Your task to perform on an android device: Search for sony triple a on walmart, select the first entry, and add it to the cart. Image 0: 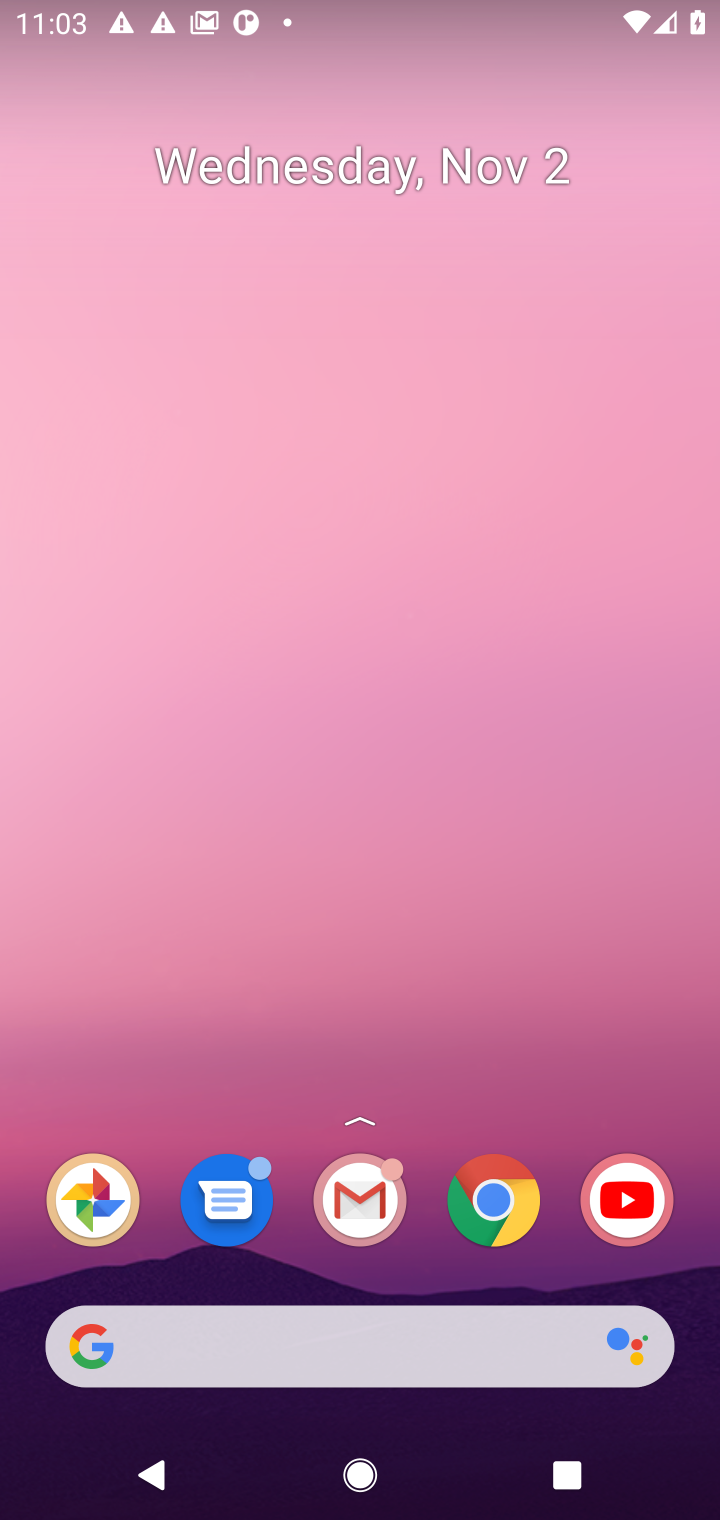
Step 0: click (504, 1208)
Your task to perform on an android device: Search for sony triple a on walmart, select the first entry, and add it to the cart. Image 1: 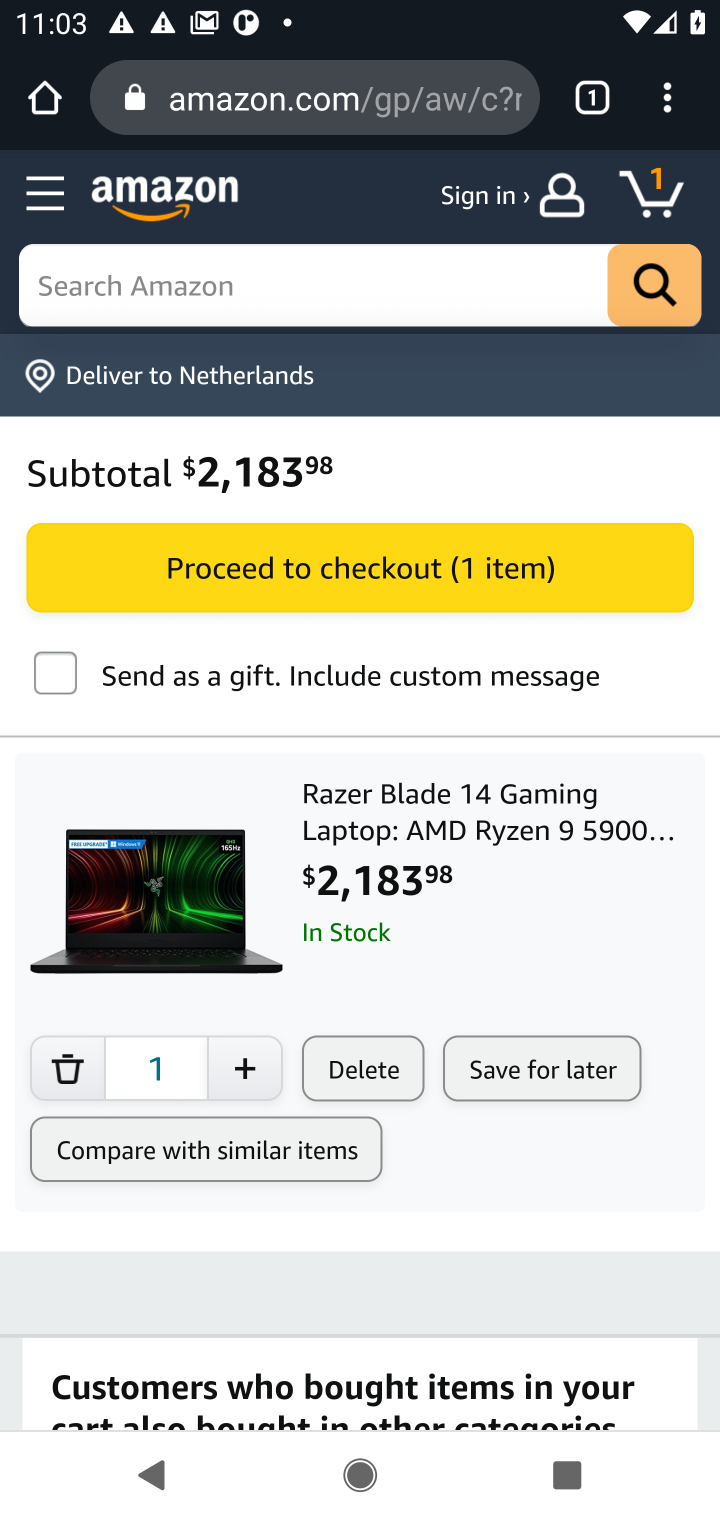
Step 1: click (377, 107)
Your task to perform on an android device: Search for sony triple a on walmart, select the first entry, and add it to the cart. Image 2: 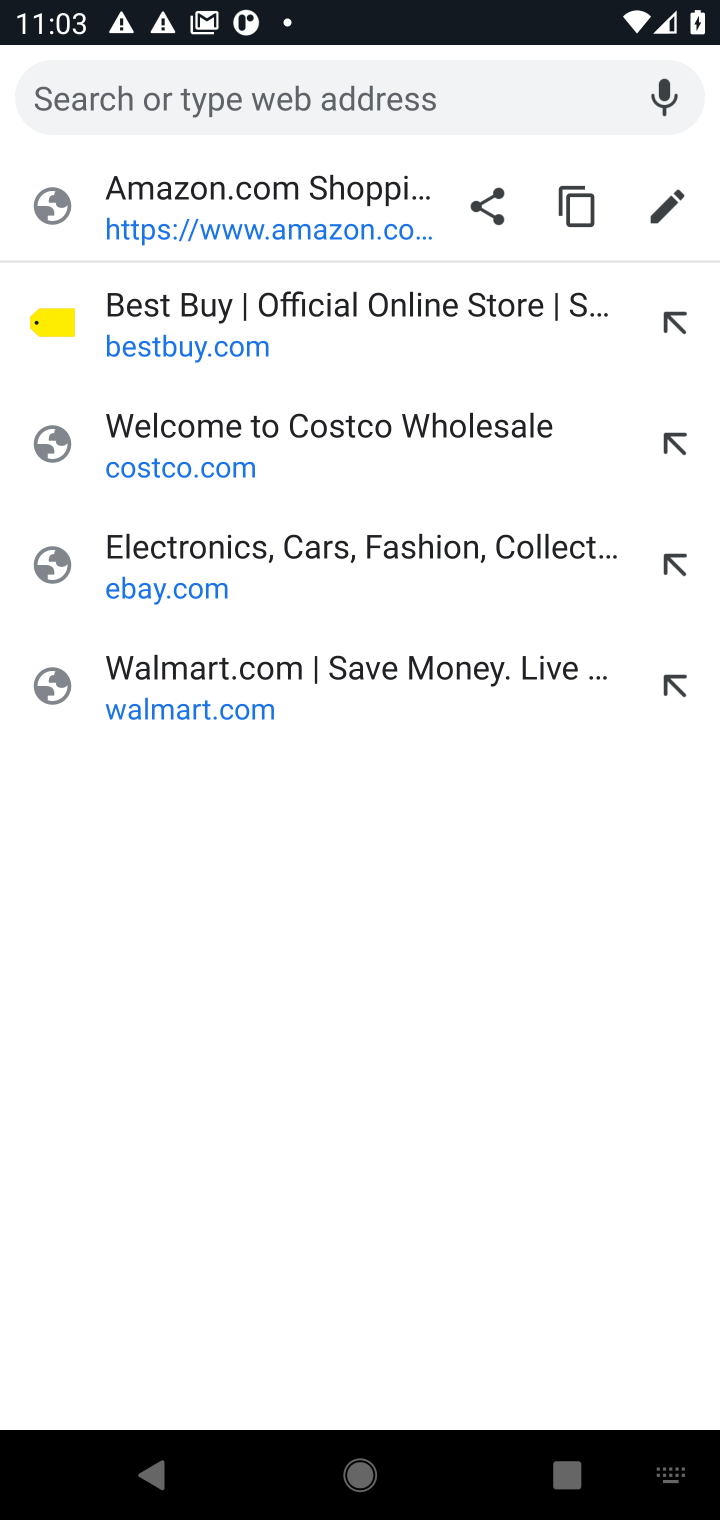
Step 2: click (231, 683)
Your task to perform on an android device: Search for sony triple a on walmart, select the first entry, and add it to the cart. Image 3: 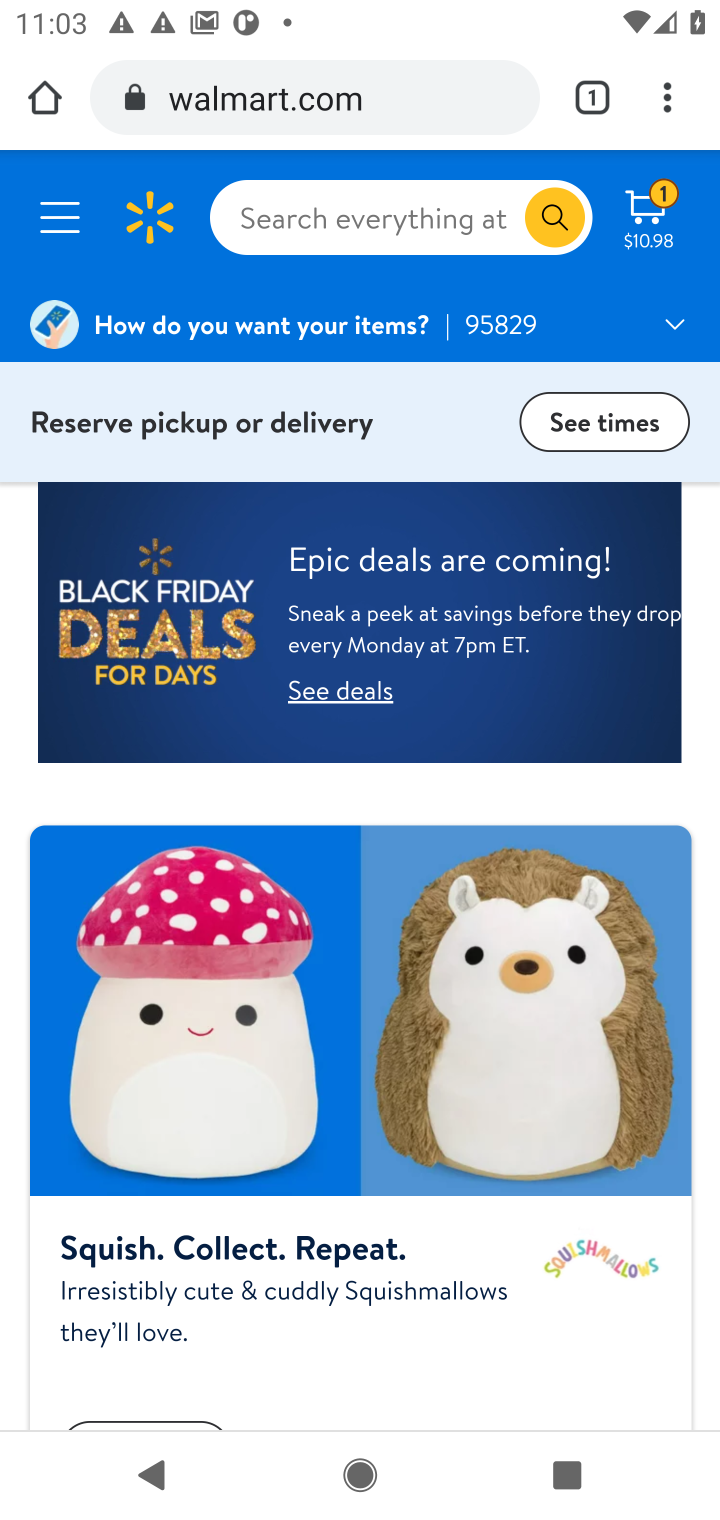
Step 3: click (343, 209)
Your task to perform on an android device: Search for sony triple a on walmart, select the first entry, and add it to the cart. Image 4: 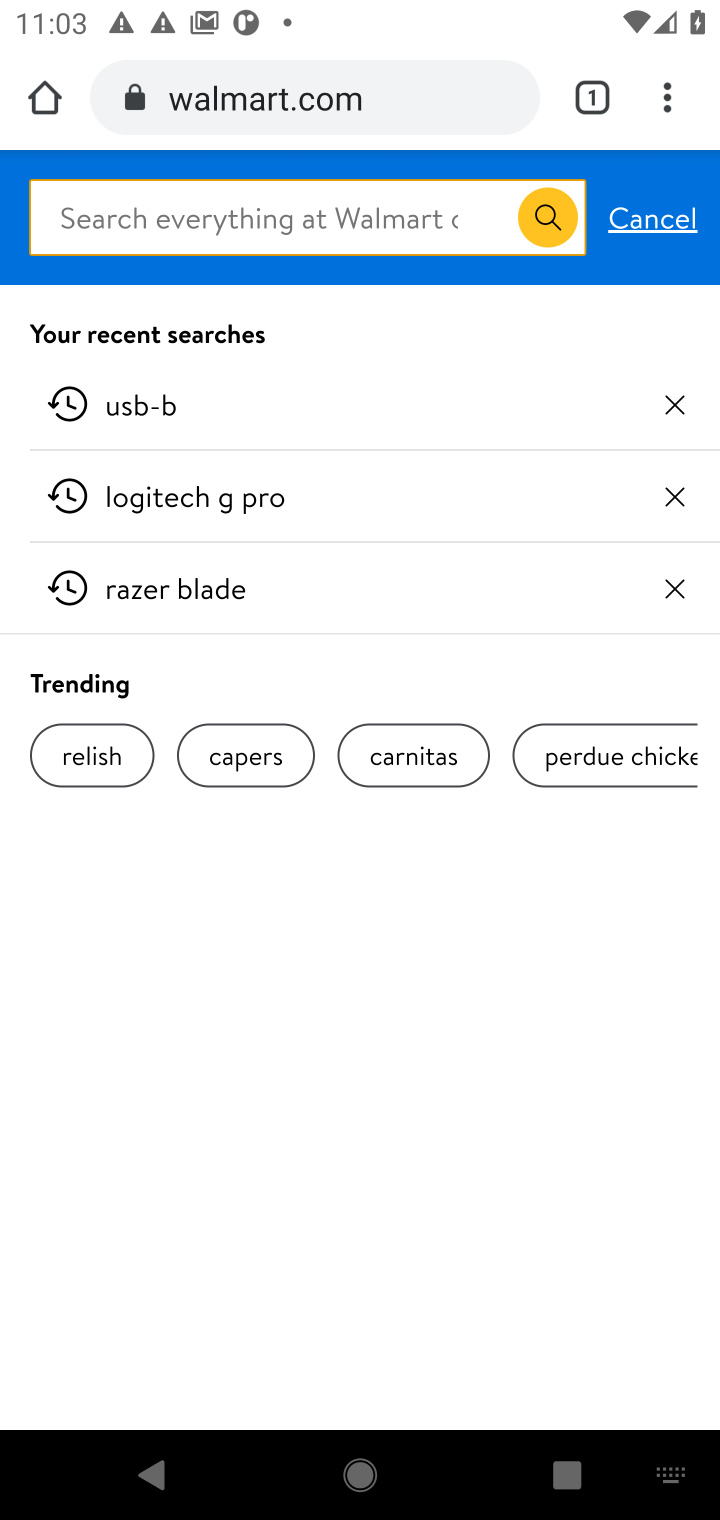
Step 4: type "sony triple a"
Your task to perform on an android device: Search for sony triple a on walmart, select the first entry, and add it to the cart. Image 5: 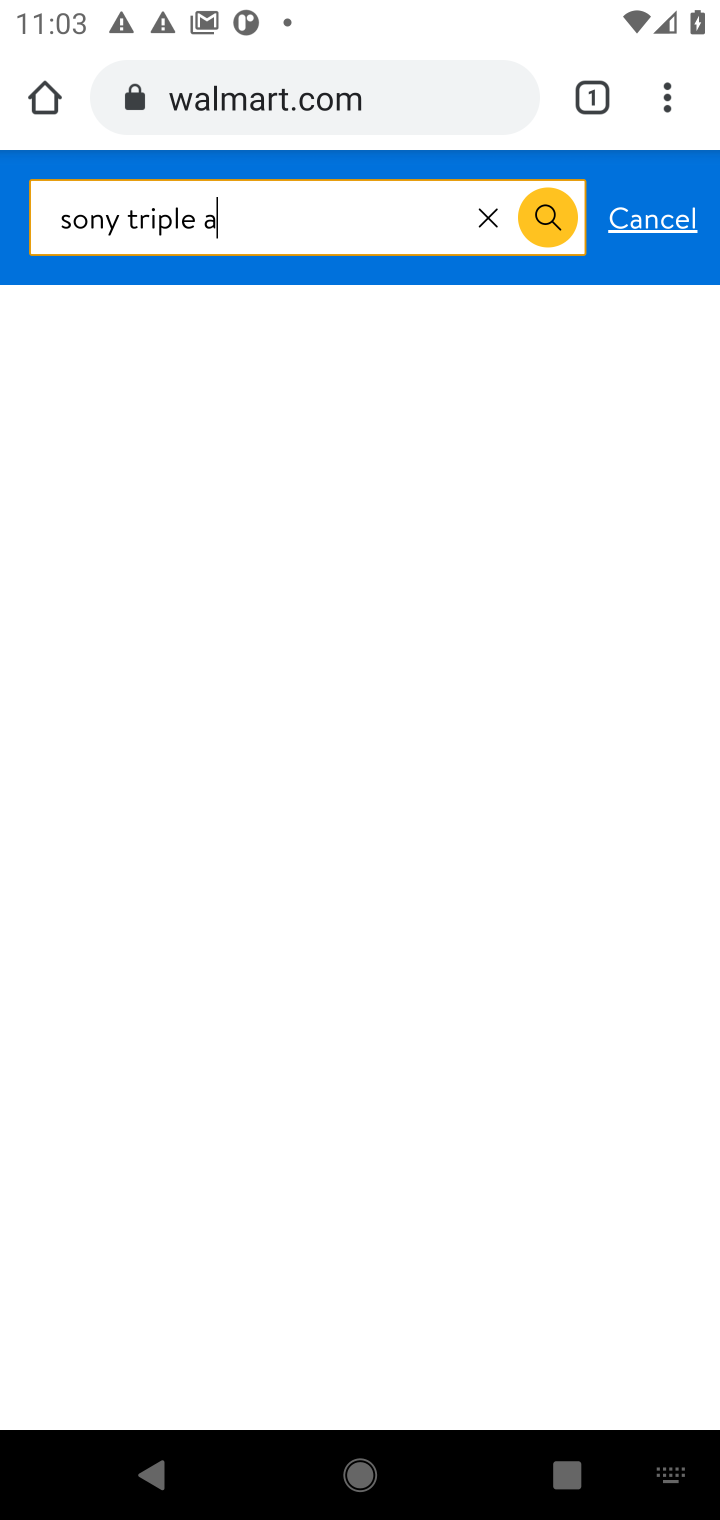
Step 5: press enter
Your task to perform on an android device: Search for sony triple a on walmart, select the first entry, and add it to the cart. Image 6: 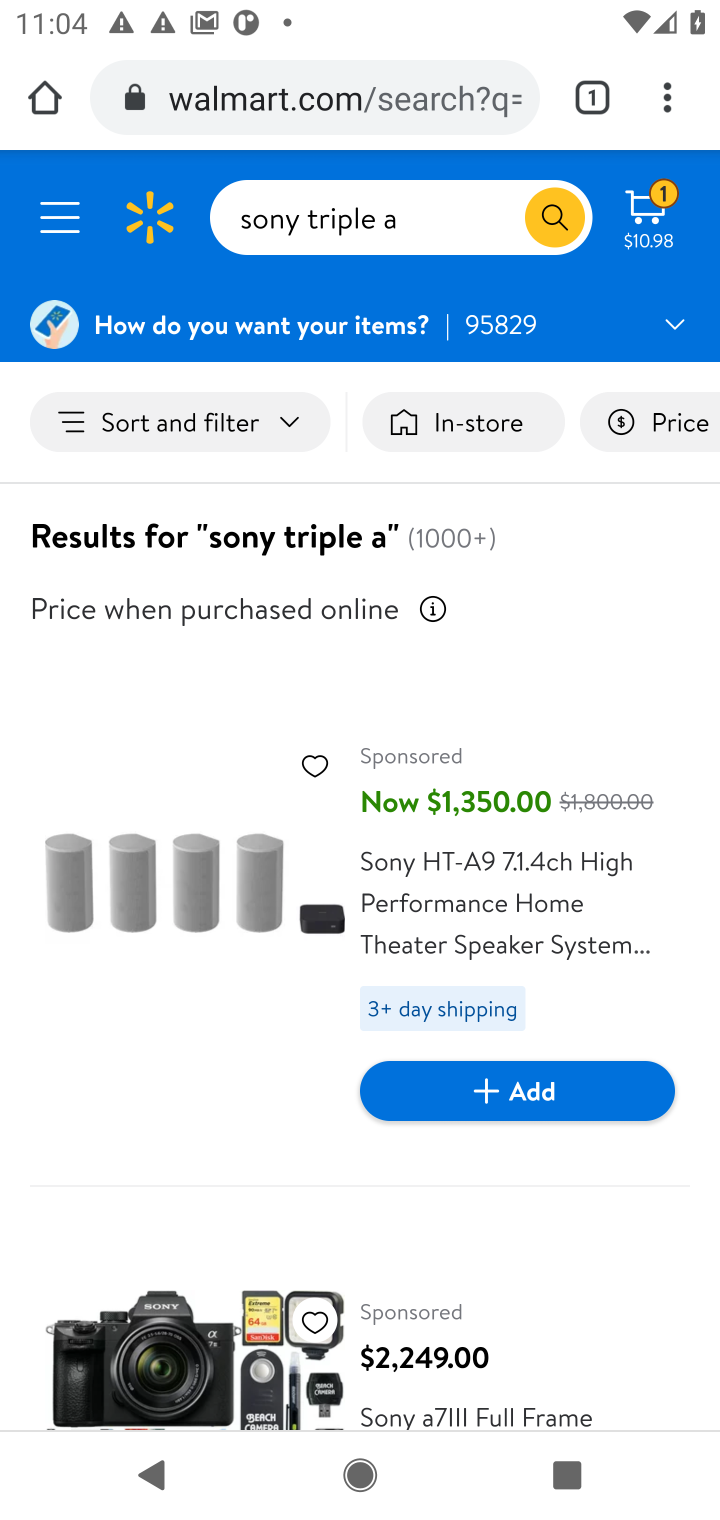
Step 6: drag from (225, 1125) to (344, 611)
Your task to perform on an android device: Search for sony triple a on walmart, select the first entry, and add it to the cart. Image 7: 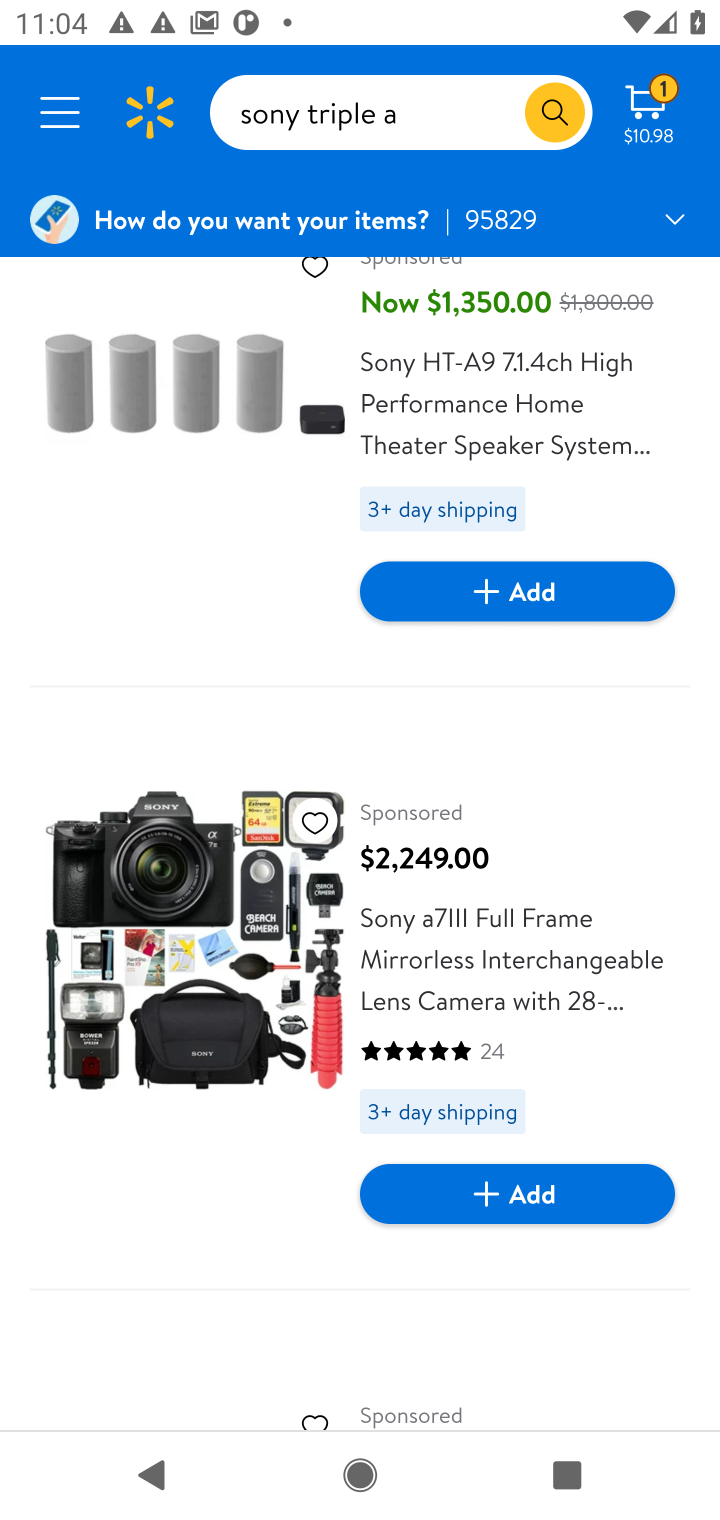
Step 7: drag from (173, 1067) to (196, 619)
Your task to perform on an android device: Search for sony triple a on walmart, select the first entry, and add it to the cart. Image 8: 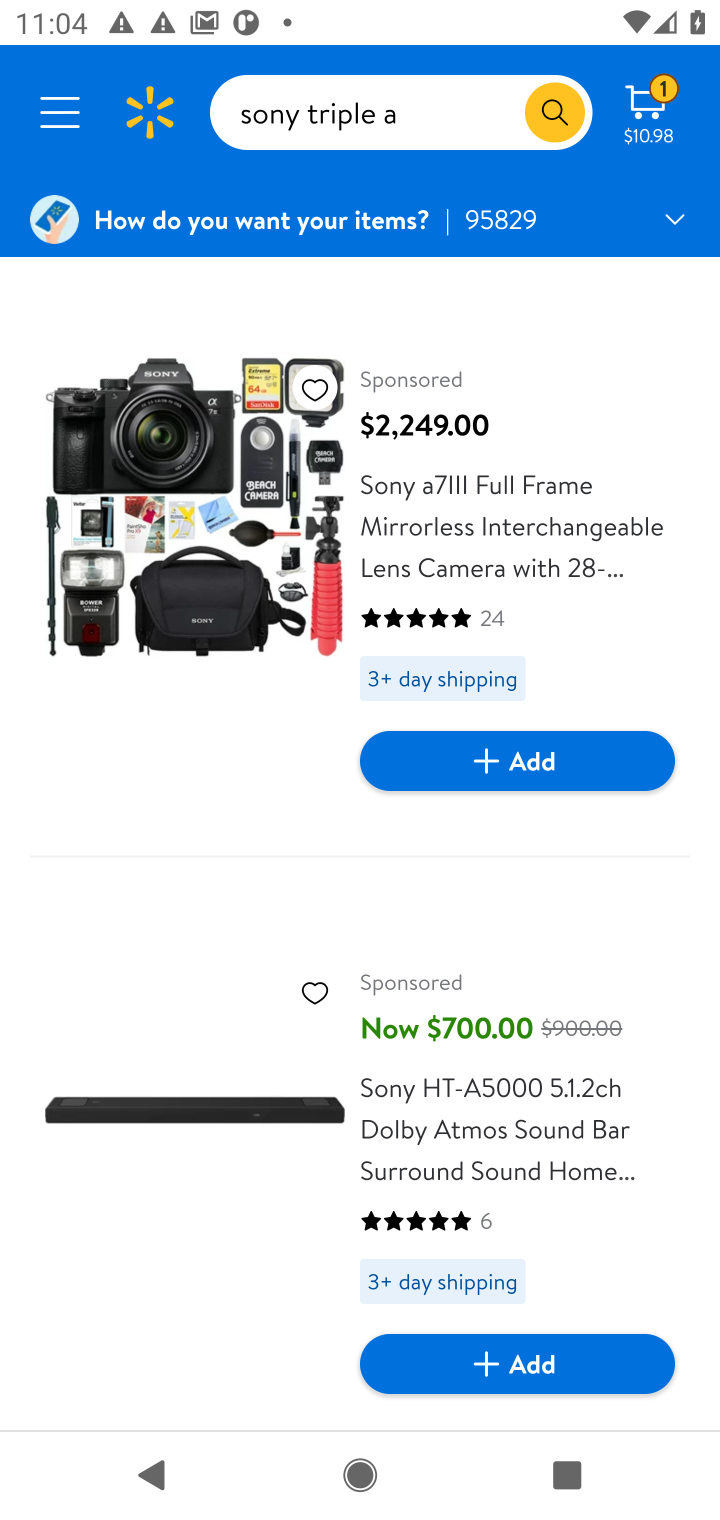
Step 8: drag from (240, 1154) to (197, 529)
Your task to perform on an android device: Search for sony triple a on walmart, select the first entry, and add it to the cart. Image 9: 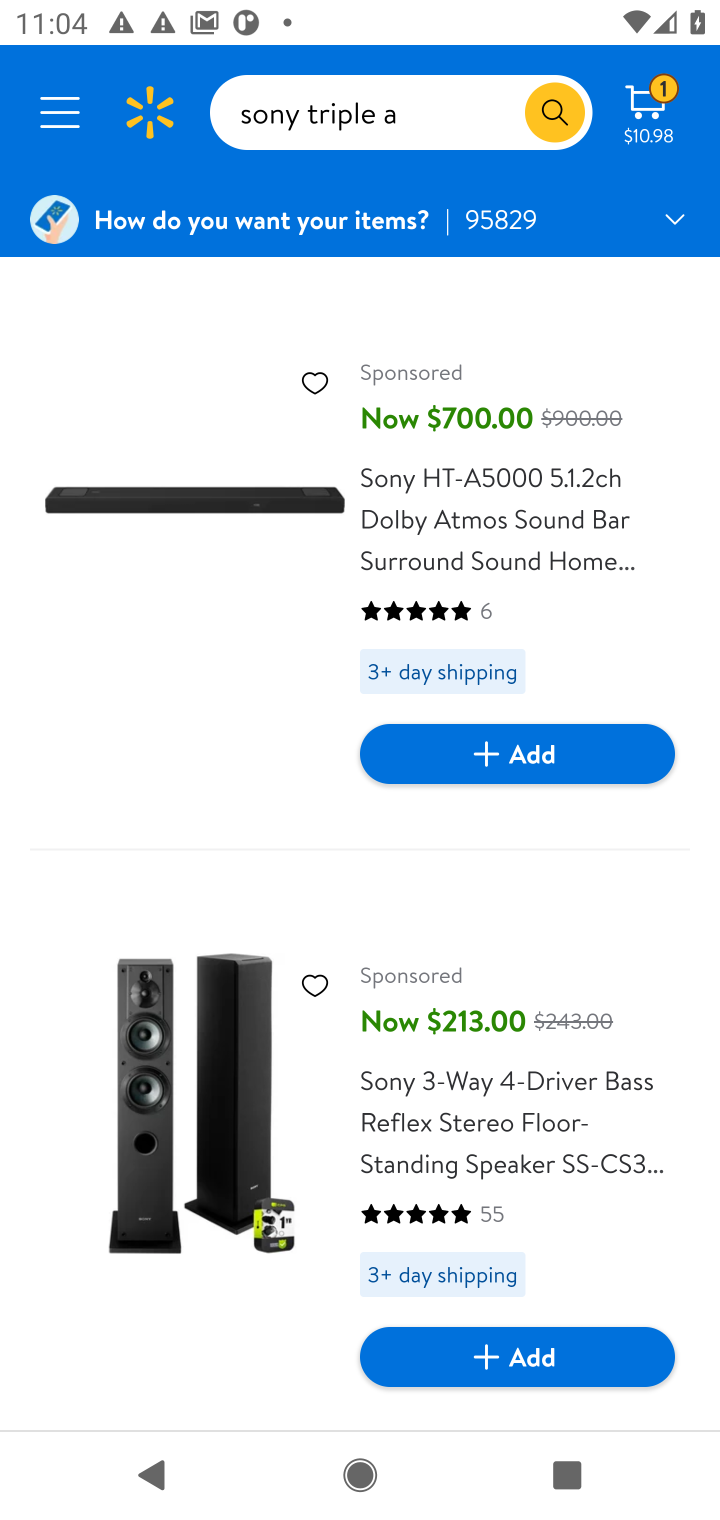
Step 9: drag from (230, 582) to (222, 1219)
Your task to perform on an android device: Search for sony triple a on walmart, select the first entry, and add it to the cart. Image 10: 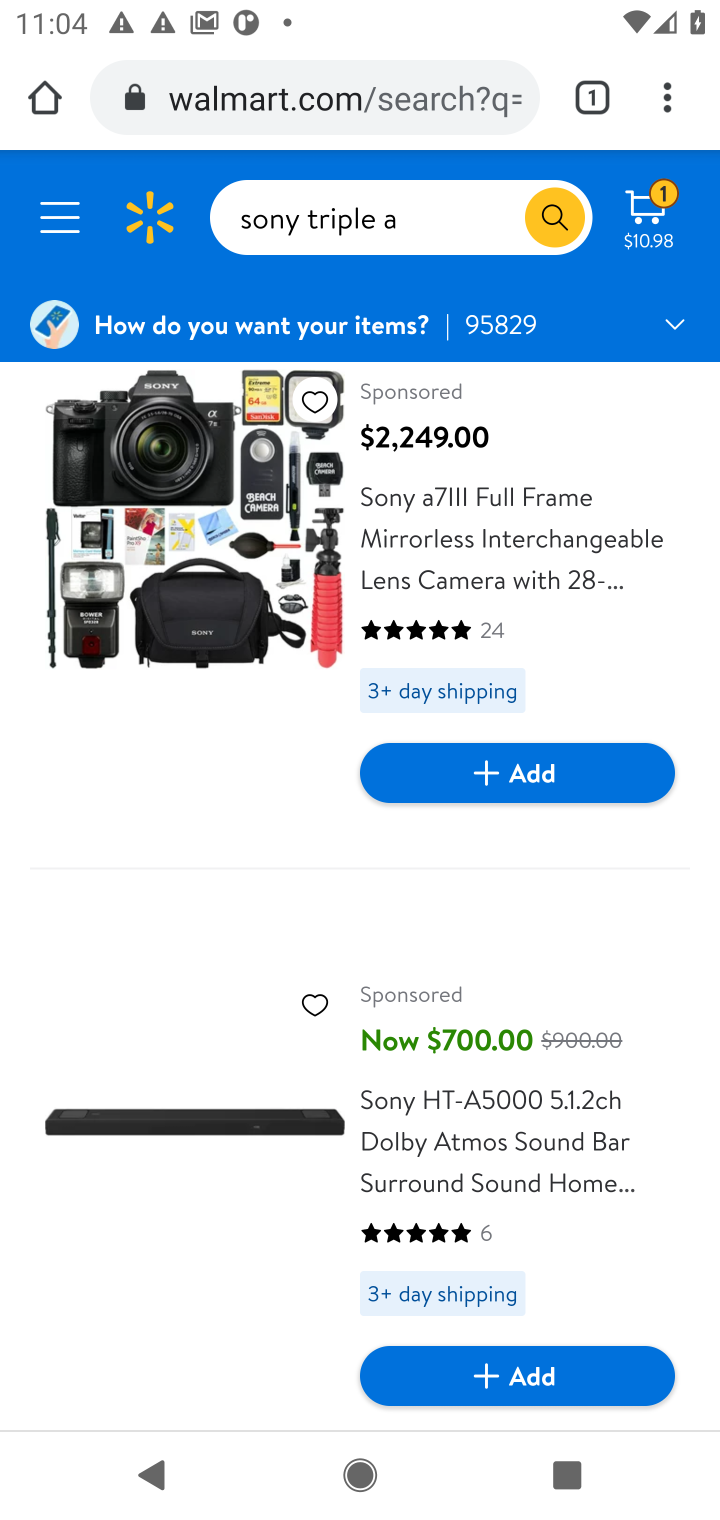
Step 10: drag from (186, 879) to (192, 1194)
Your task to perform on an android device: Search for sony triple a on walmart, select the first entry, and add it to the cart. Image 11: 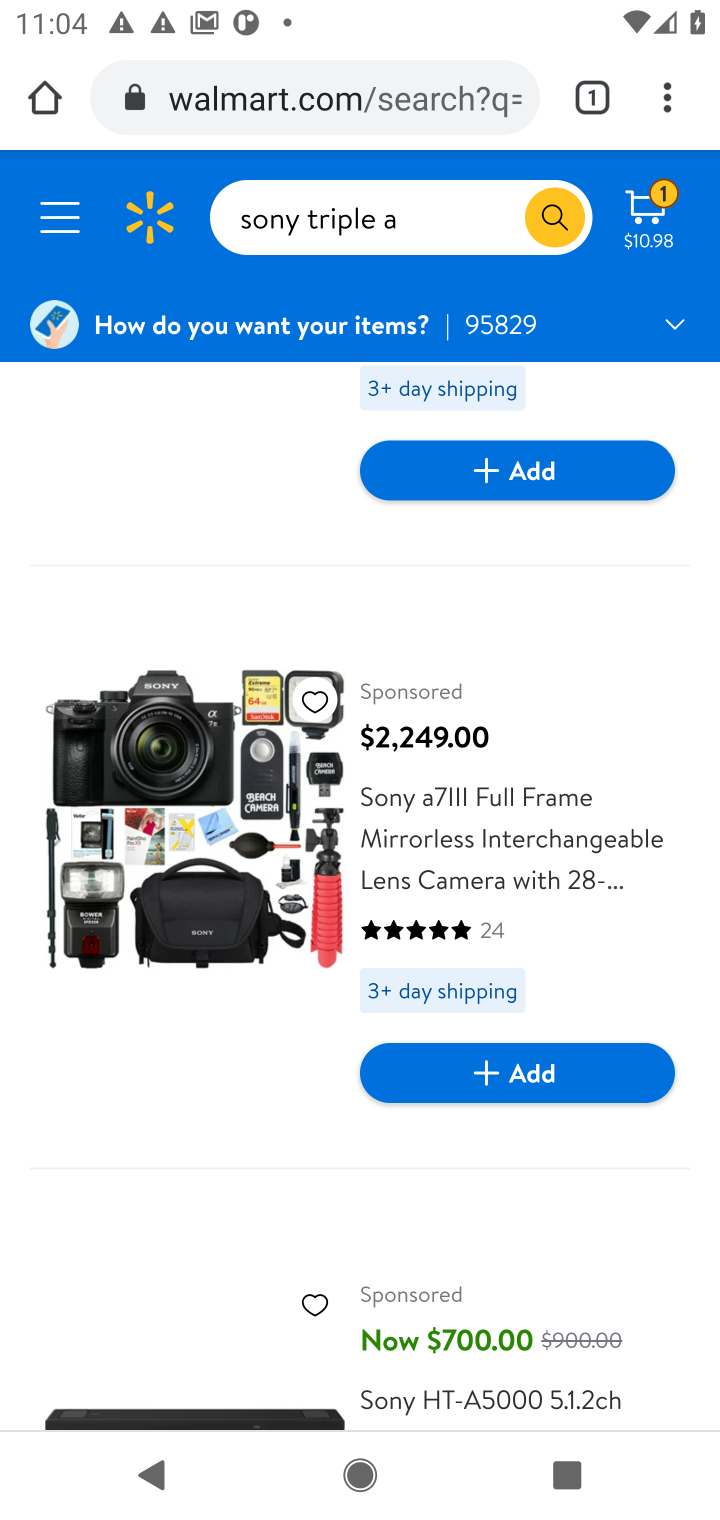
Step 11: drag from (223, 527) to (260, 1130)
Your task to perform on an android device: Search for sony triple a on walmart, select the first entry, and add it to the cart. Image 12: 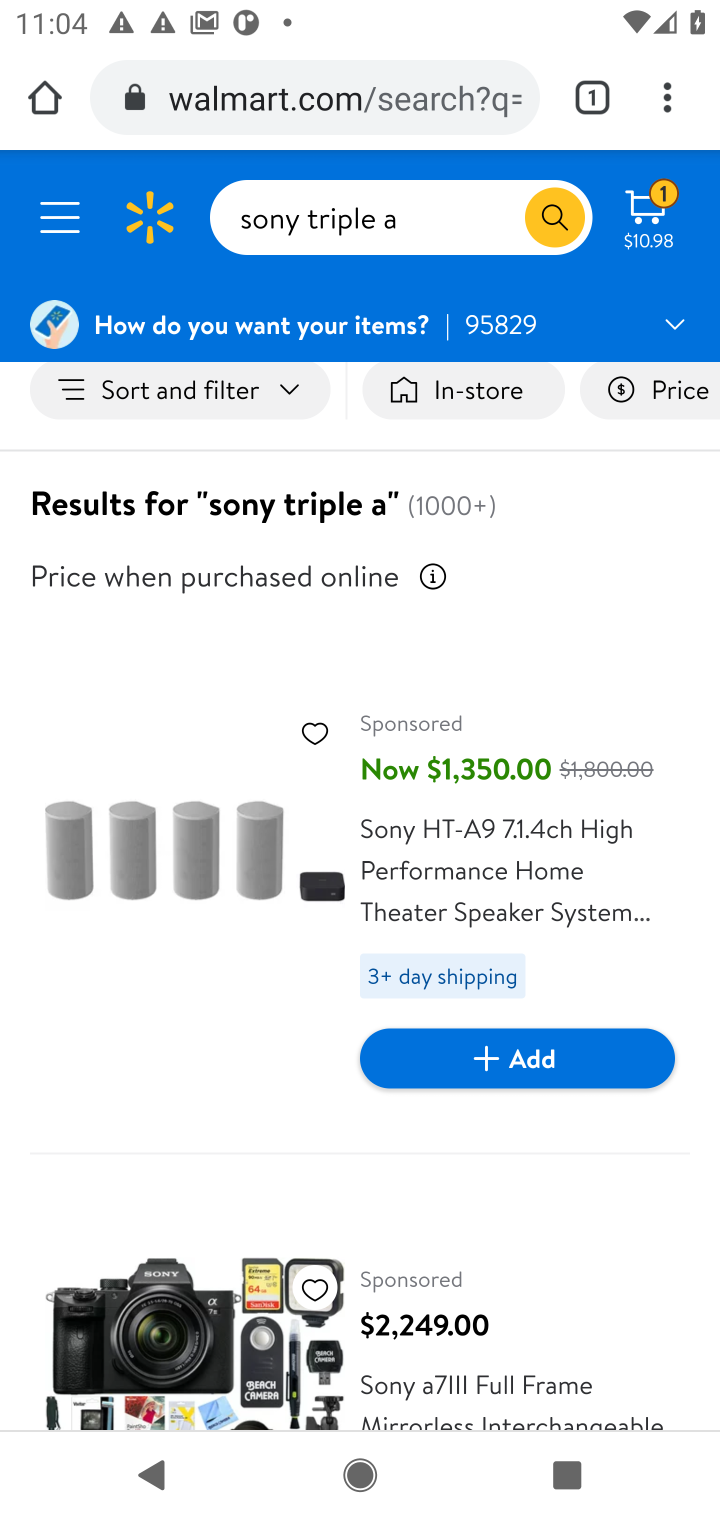
Step 12: click (123, 822)
Your task to perform on an android device: Search for sony triple a on walmart, select the first entry, and add it to the cart. Image 13: 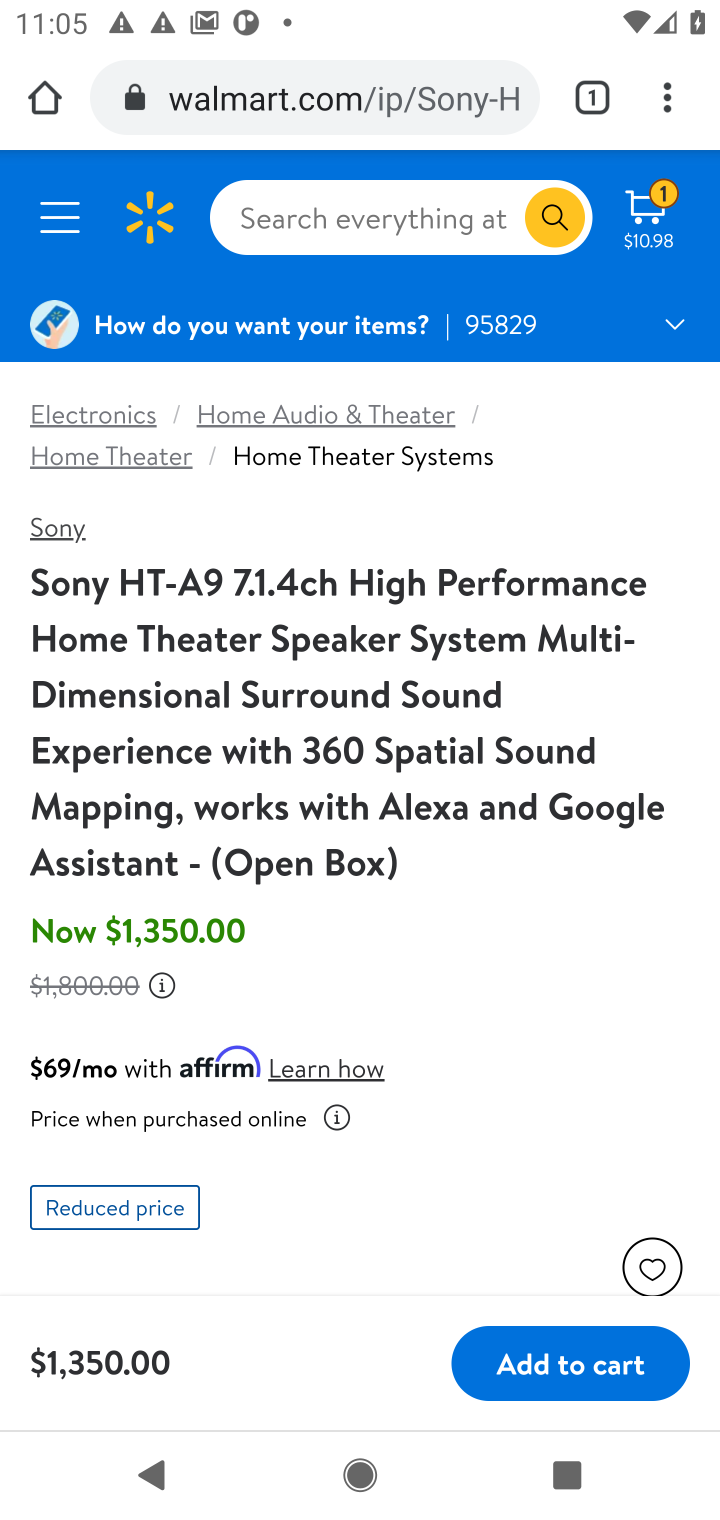
Step 13: click (581, 1381)
Your task to perform on an android device: Search for sony triple a on walmart, select the first entry, and add it to the cart. Image 14: 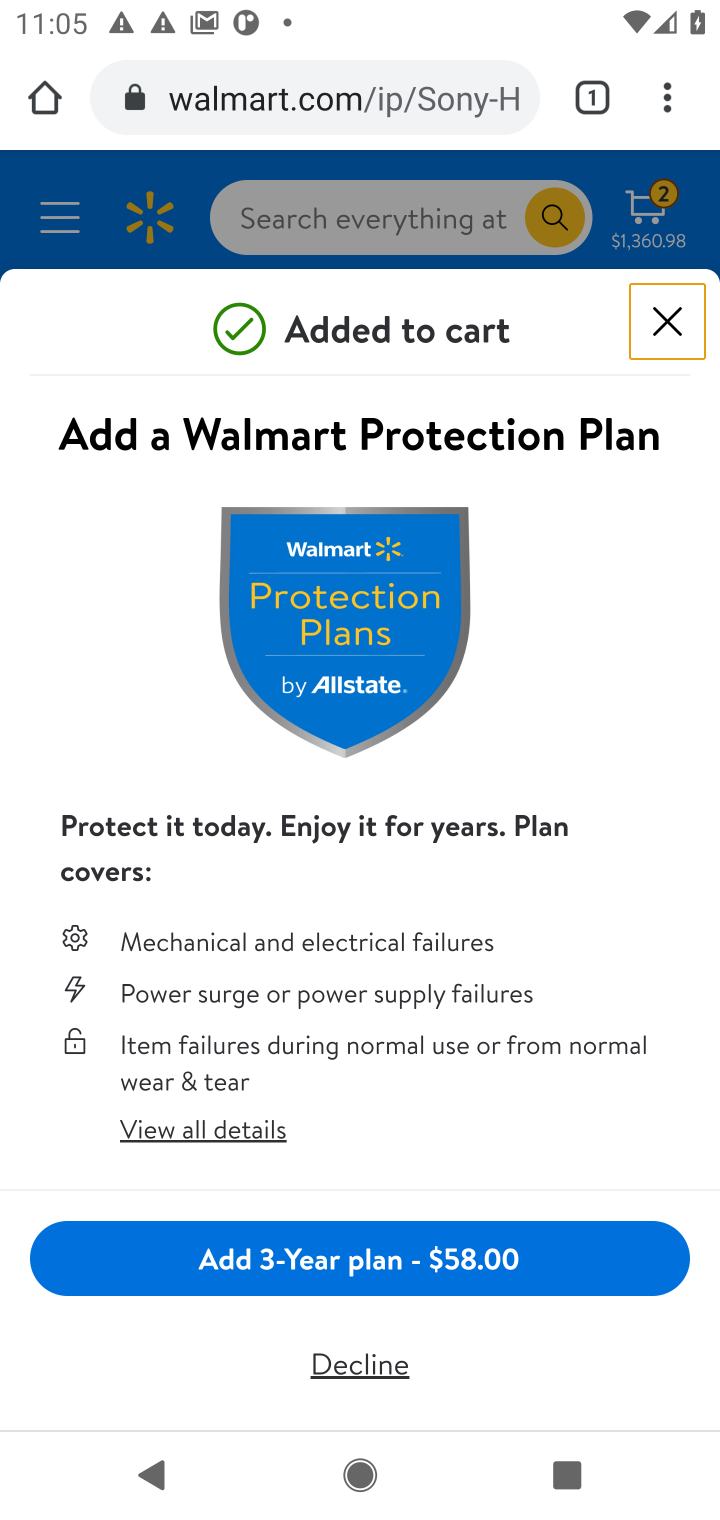
Step 14: click (663, 325)
Your task to perform on an android device: Search for sony triple a on walmart, select the first entry, and add it to the cart. Image 15: 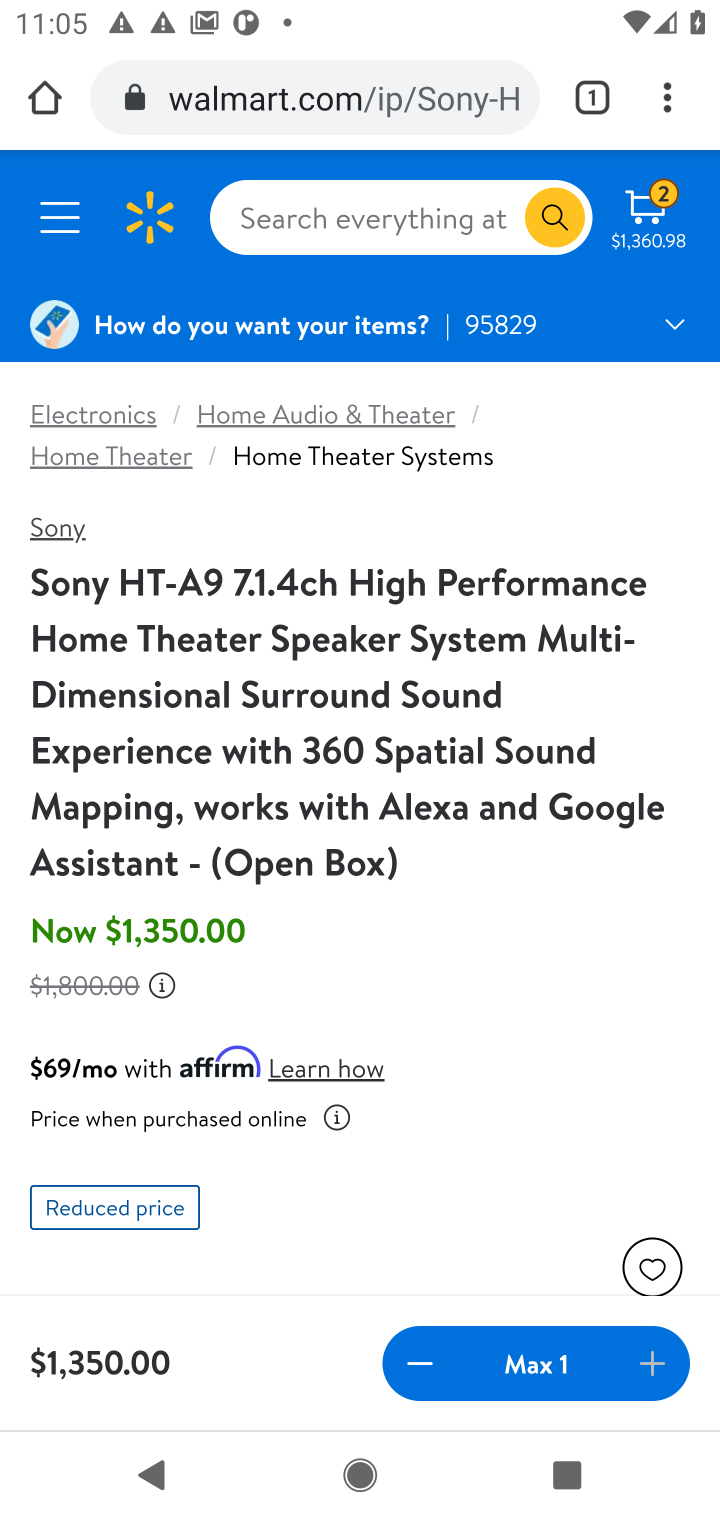
Step 15: click (645, 229)
Your task to perform on an android device: Search for sony triple a on walmart, select the first entry, and add it to the cart. Image 16: 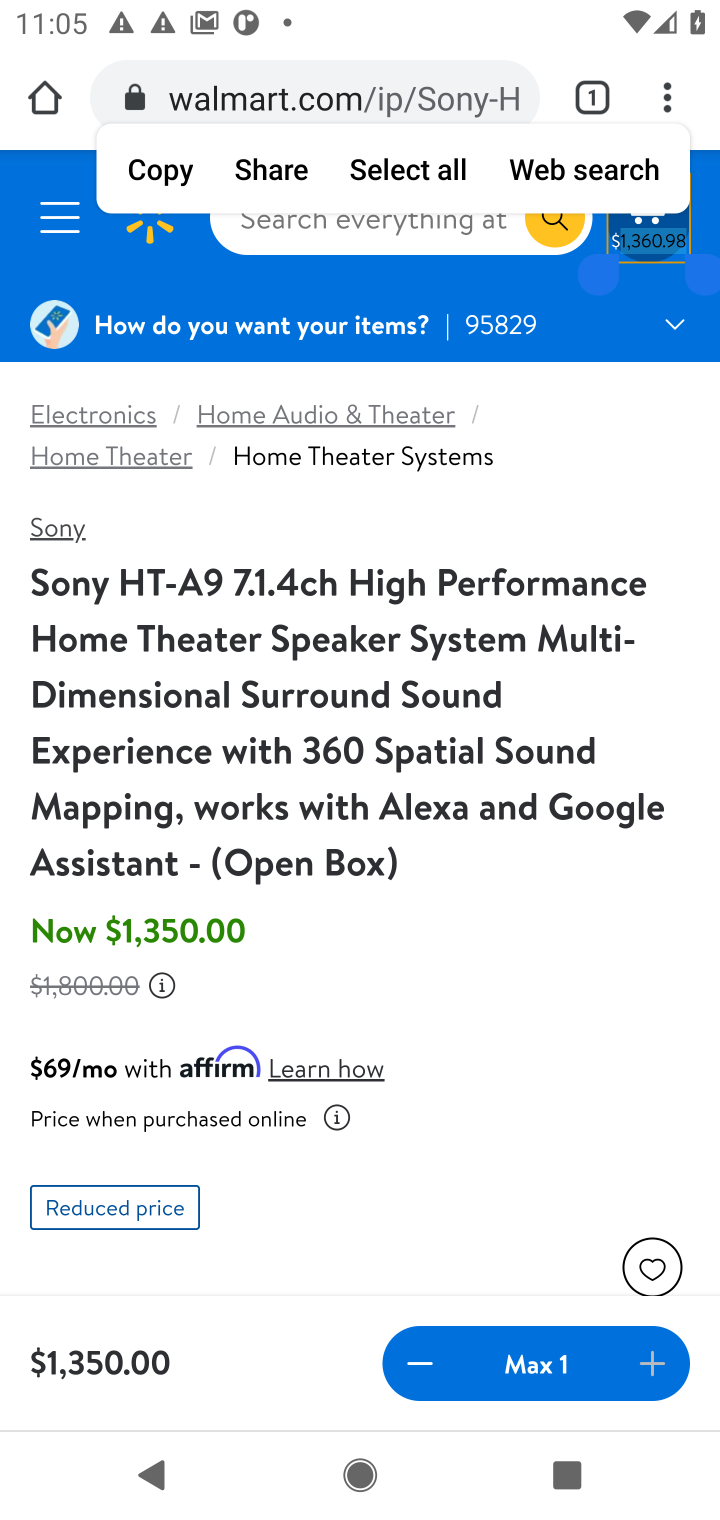
Step 16: click (566, 296)
Your task to perform on an android device: Search for sony triple a on walmart, select the first entry, and add it to the cart. Image 17: 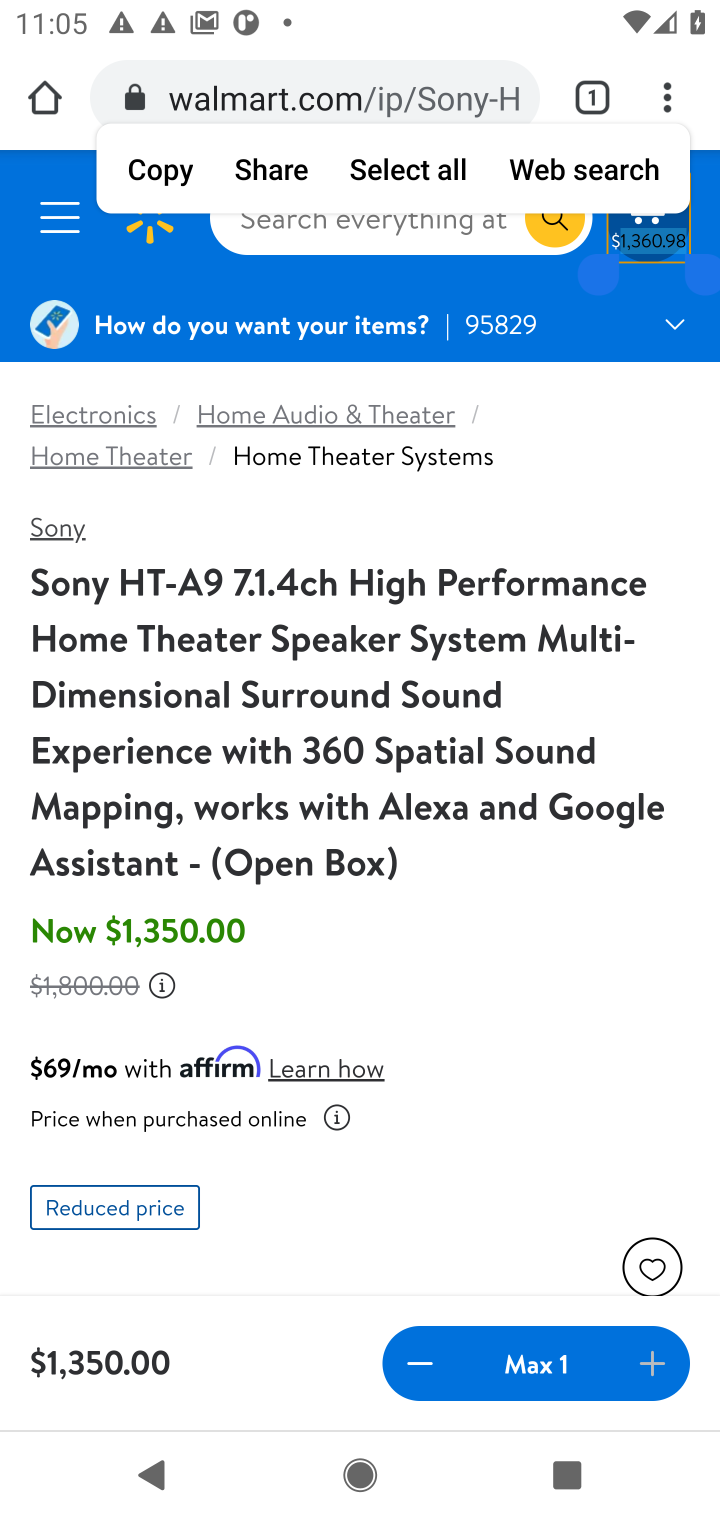
Step 17: click (656, 234)
Your task to perform on an android device: Search for sony triple a on walmart, select the first entry, and add it to the cart. Image 18: 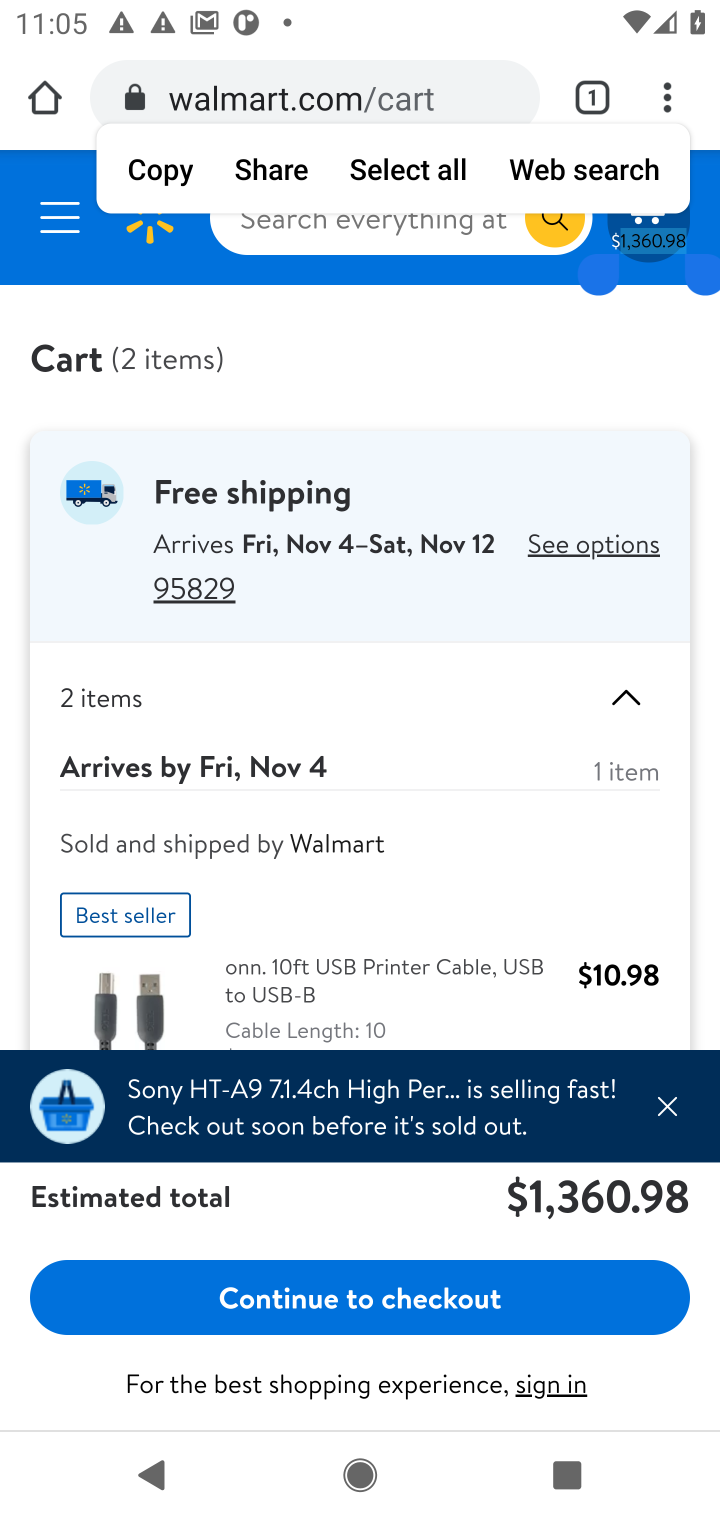
Step 18: click (418, 311)
Your task to perform on an android device: Search for sony triple a on walmart, select the first entry, and add it to the cart. Image 19: 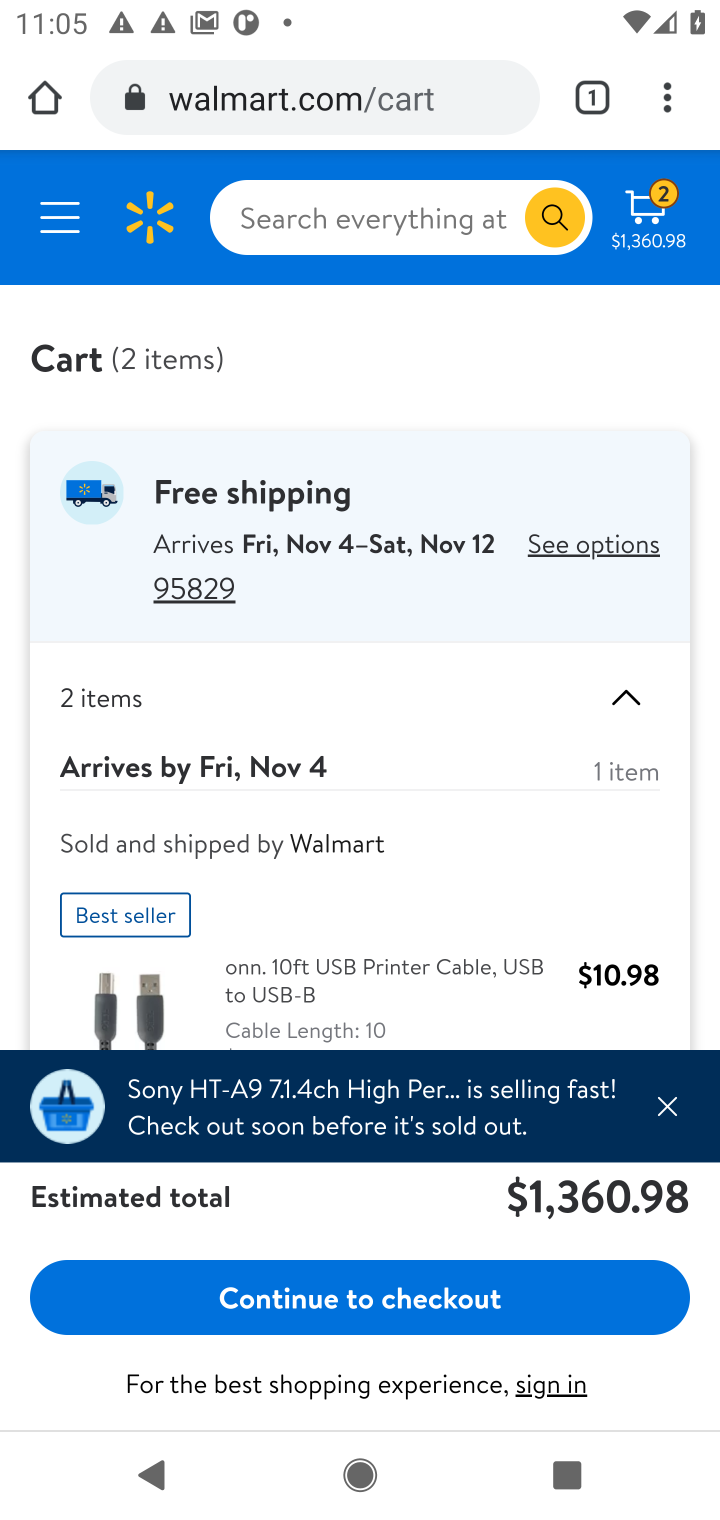
Step 19: task complete